Your task to perform on an android device: turn off sleep mode Image 0: 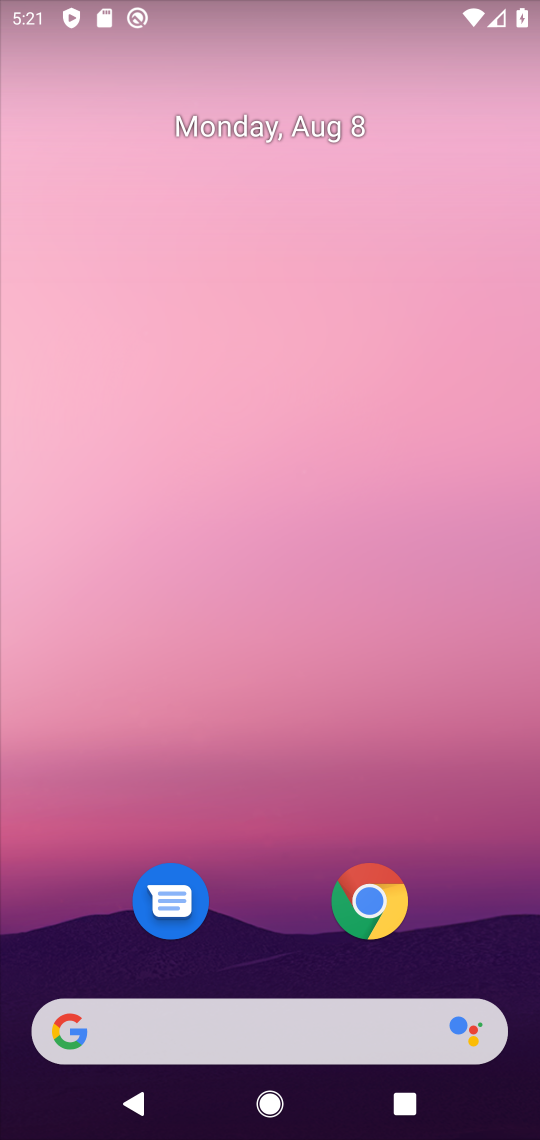
Step 0: drag from (507, 963) to (366, 260)
Your task to perform on an android device: turn off sleep mode Image 1: 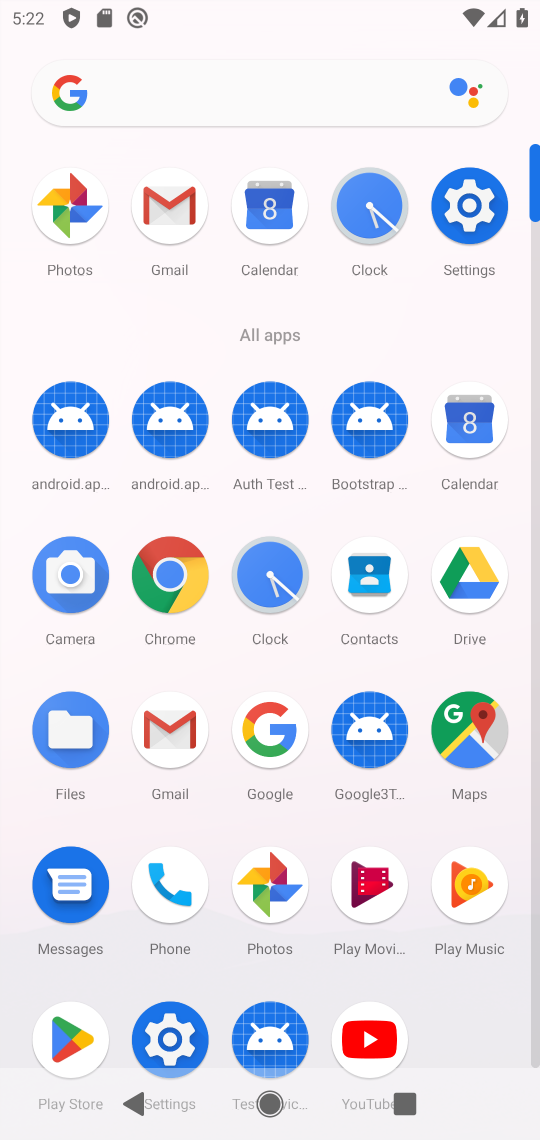
Step 1: click (464, 201)
Your task to perform on an android device: turn off sleep mode Image 2: 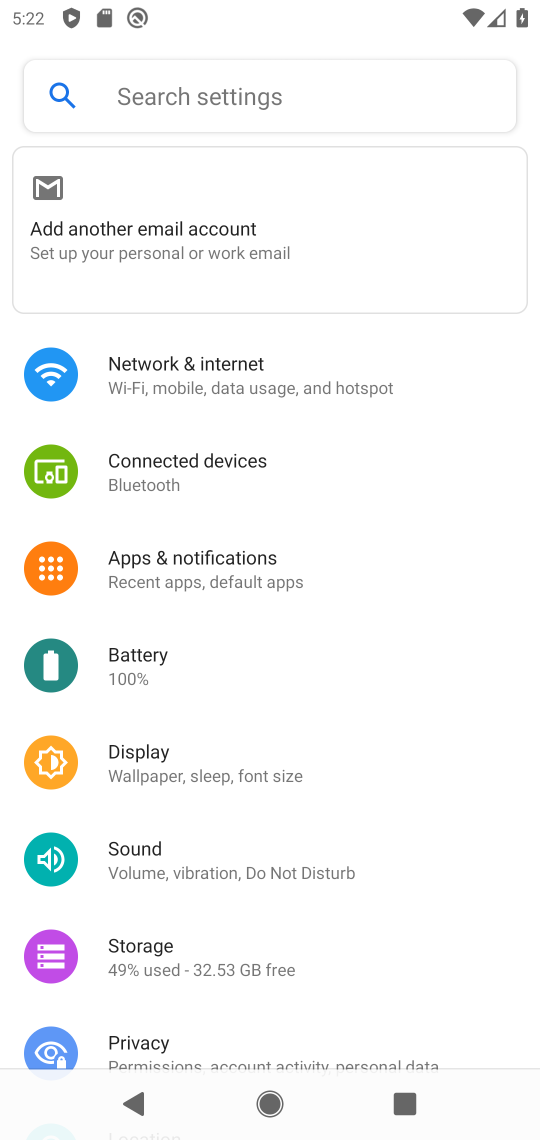
Step 2: click (252, 790)
Your task to perform on an android device: turn off sleep mode Image 3: 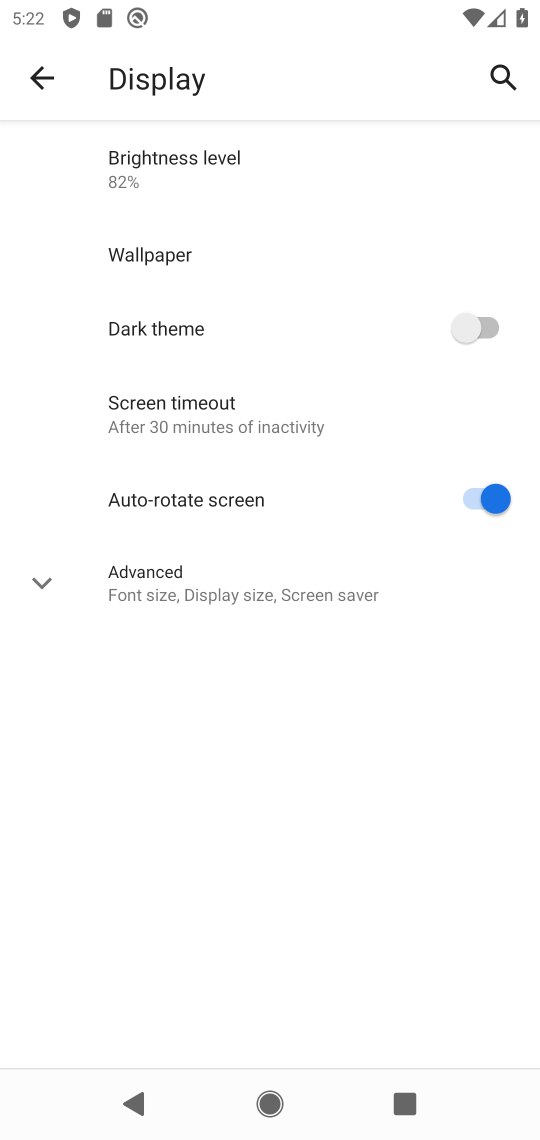
Step 3: click (320, 598)
Your task to perform on an android device: turn off sleep mode Image 4: 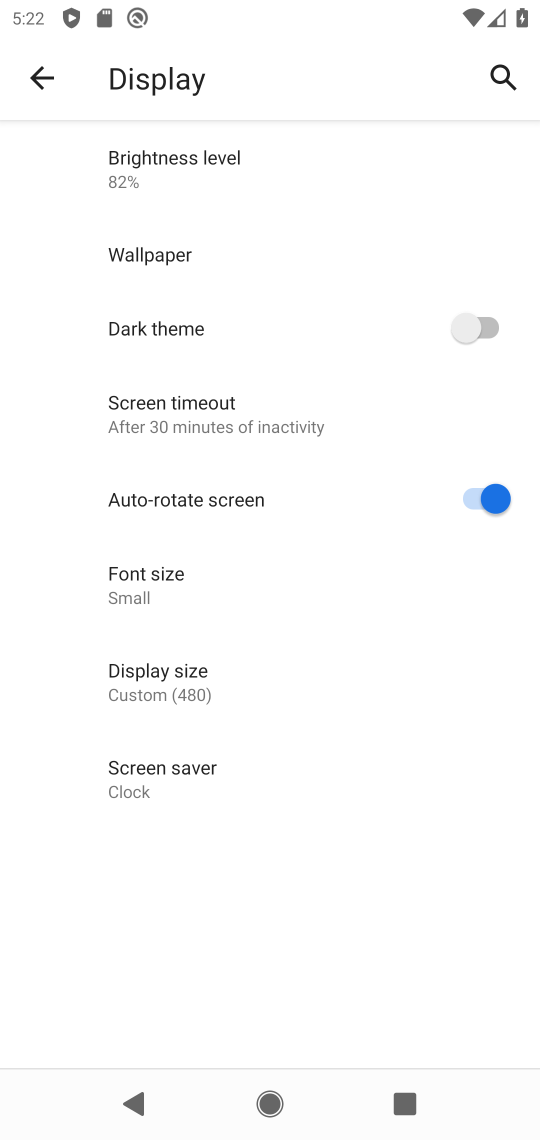
Step 4: task complete